Your task to perform on an android device: Open ESPN.com Image 0: 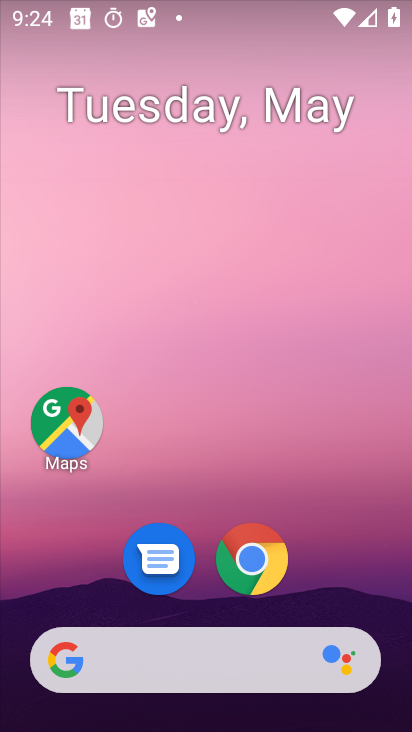
Step 0: drag from (175, 437) to (69, 45)
Your task to perform on an android device: Open ESPN.com Image 1: 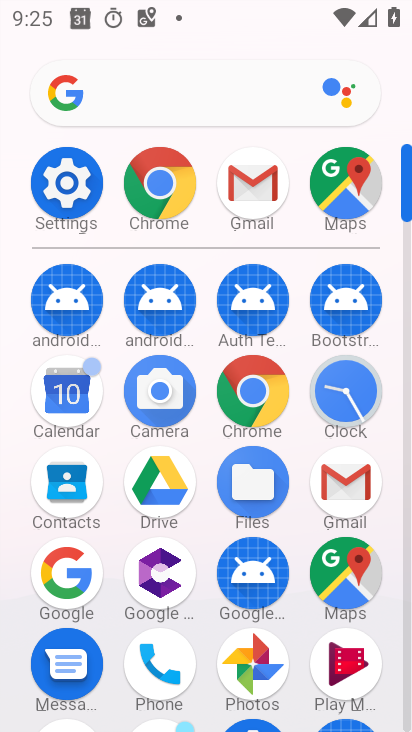
Step 1: click (146, 183)
Your task to perform on an android device: Open ESPN.com Image 2: 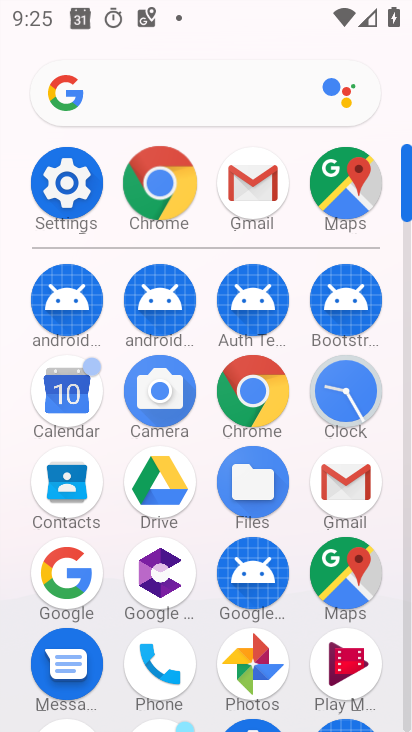
Step 2: click (147, 183)
Your task to perform on an android device: Open ESPN.com Image 3: 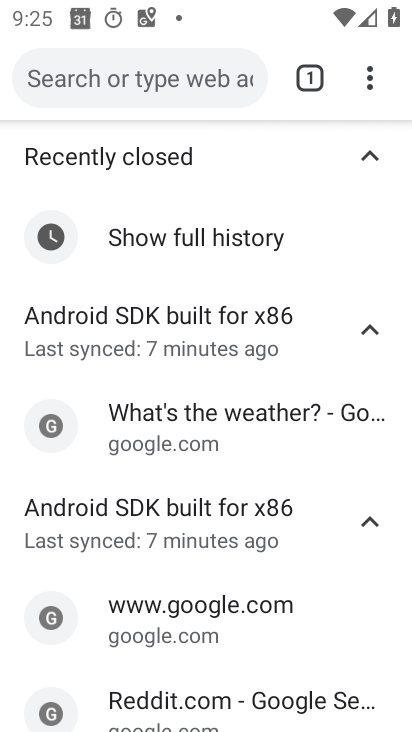
Step 3: drag from (364, 71) to (118, 403)
Your task to perform on an android device: Open ESPN.com Image 4: 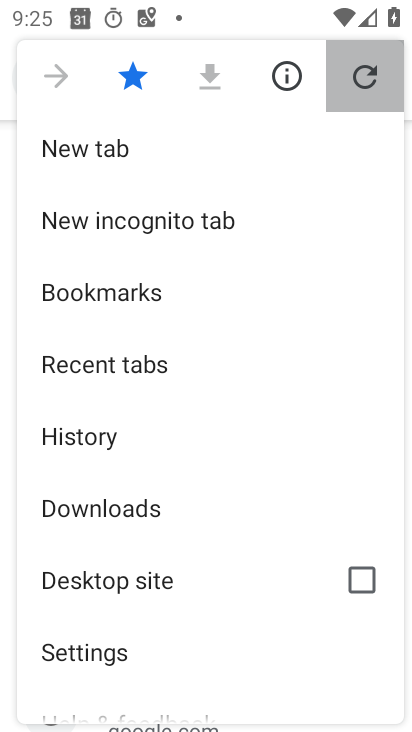
Step 4: drag from (83, 234) to (347, 129)
Your task to perform on an android device: Open ESPN.com Image 5: 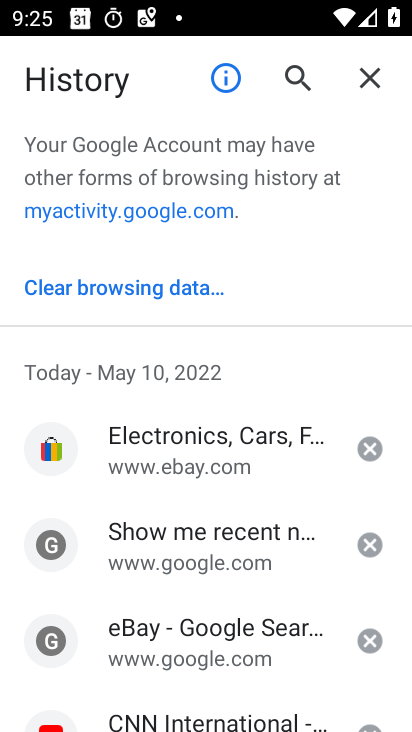
Step 5: click (371, 80)
Your task to perform on an android device: Open ESPN.com Image 6: 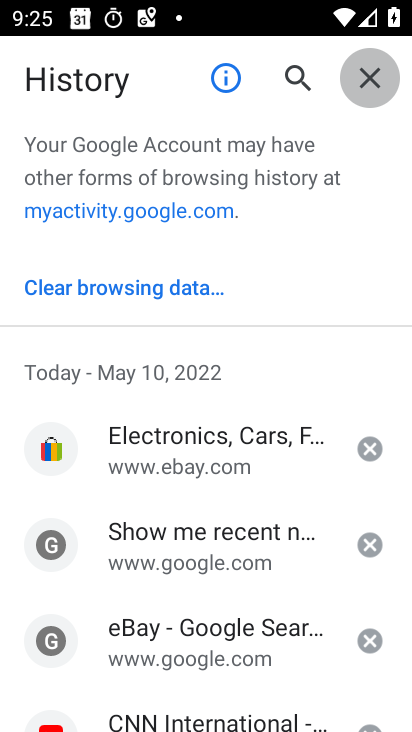
Step 6: click (371, 80)
Your task to perform on an android device: Open ESPN.com Image 7: 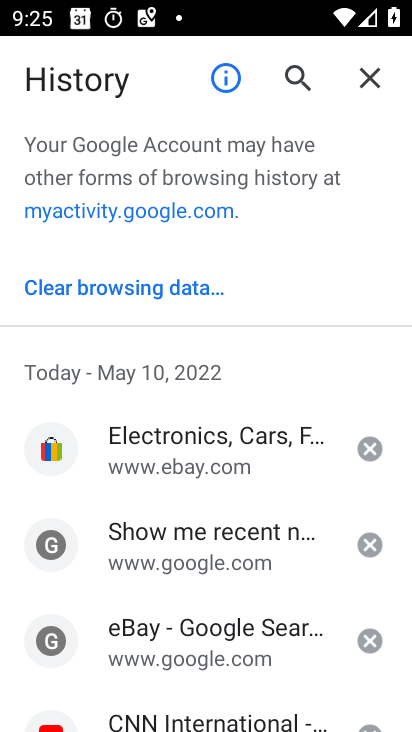
Step 7: click (371, 81)
Your task to perform on an android device: Open ESPN.com Image 8: 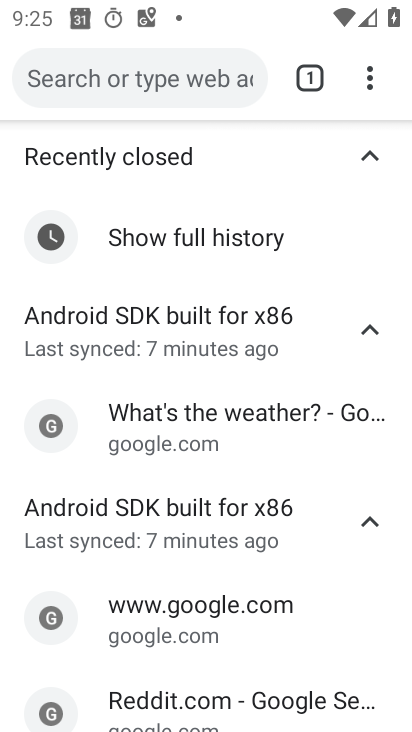
Step 8: click (364, 80)
Your task to perform on an android device: Open ESPN.com Image 9: 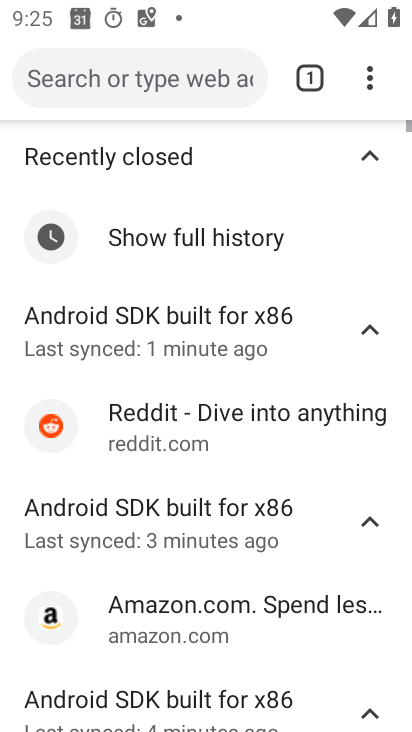
Step 9: drag from (369, 77) to (63, 157)
Your task to perform on an android device: Open ESPN.com Image 10: 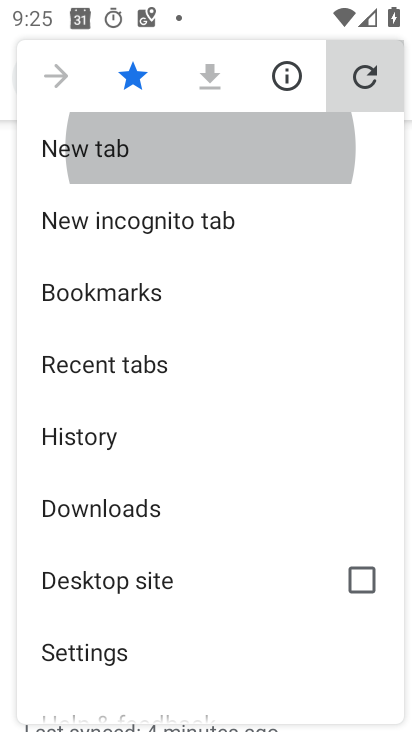
Step 10: click (66, 148)
Your task to perform on an android device: Open ESPN.com Image 11: 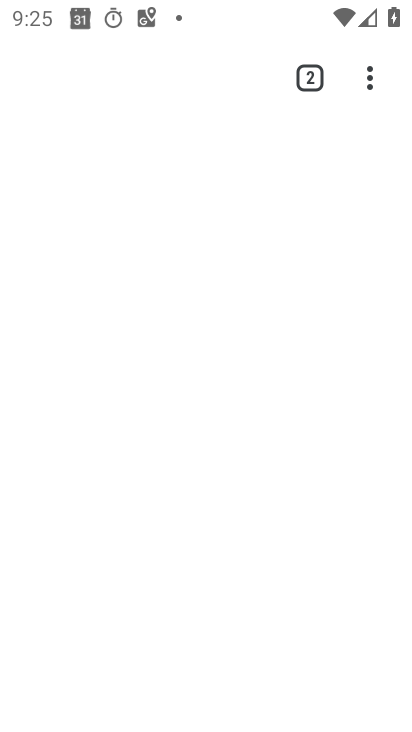
Step 11: click (65, 147)
Your task to perform on an android device: Open ESPN.com Image 12: 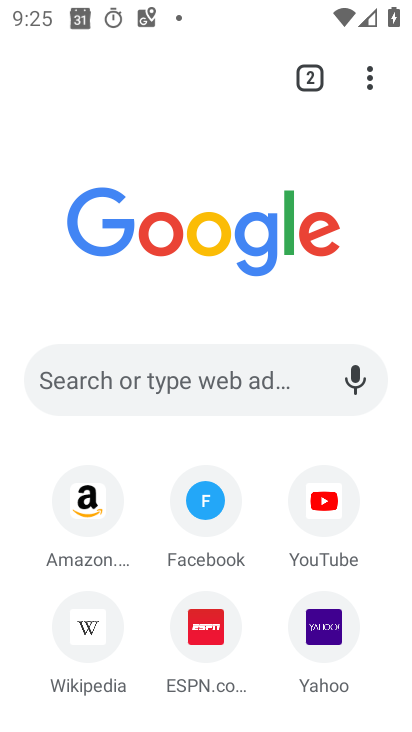
Step 12: click (183, 628)
Your task to perform on an android device: Open ESPN.com Image 13: 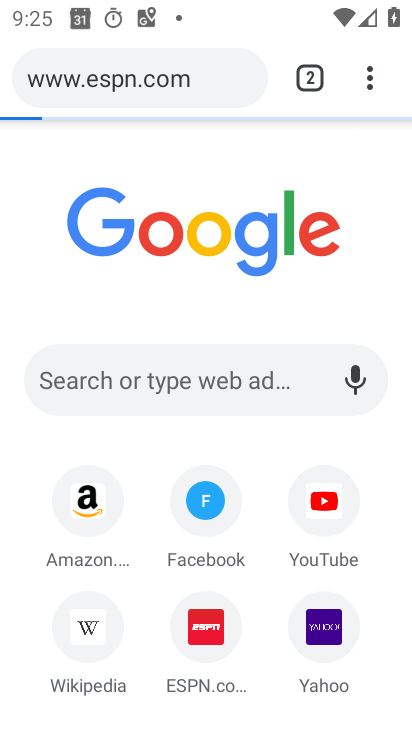
Step 13: click (201, 624)
Your task to perform on an android device: Open ESPN.com Image 14: 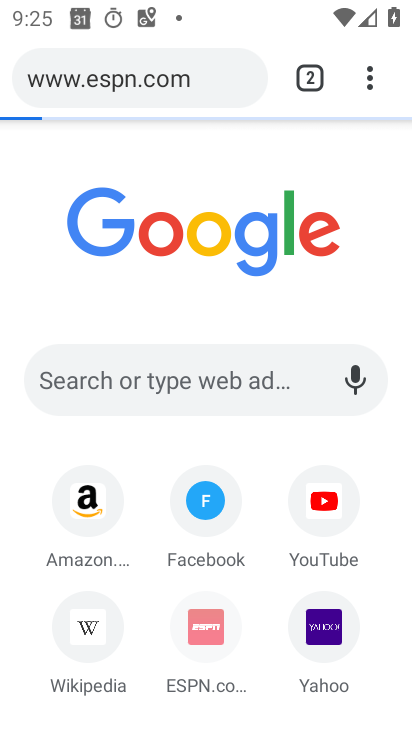
Step 14: click (208, 624)
Your task to perform on an android device: Open ESPN.com Image 15: 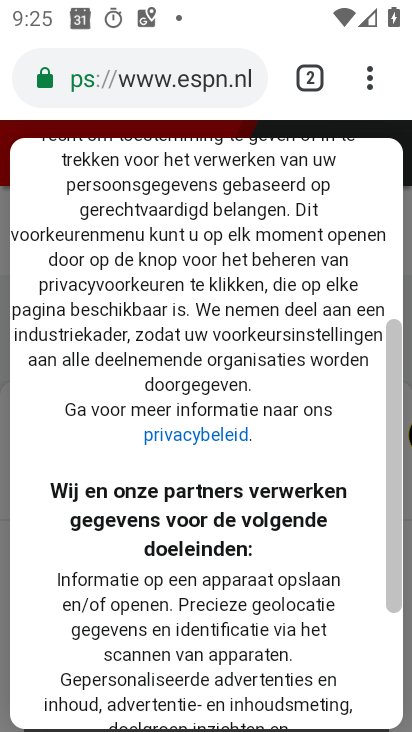
Step 15: task complete